Your task to perform on an android device: set default search engine in the chrome app Image 0: 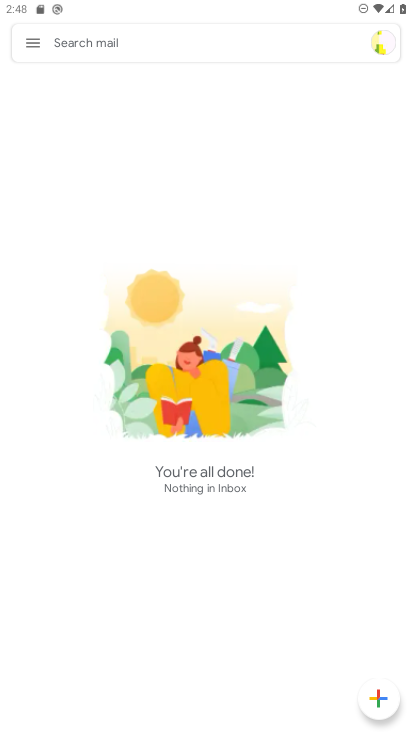
Step 0: press home button
Your task to perform on an android device: set default search engine in the chrome app Image 1: 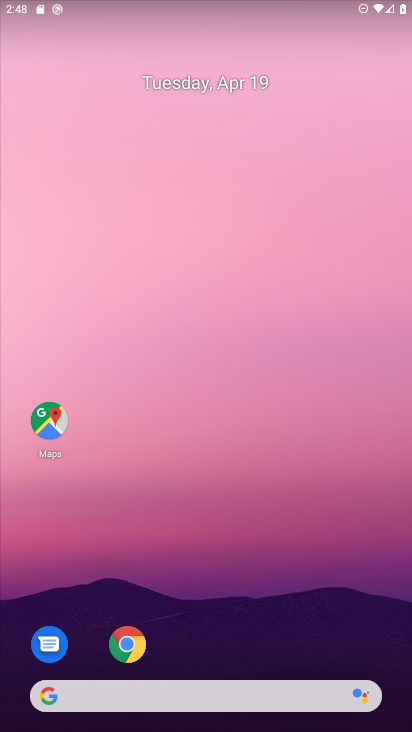
Step 1: drag from (190, 612) to (165, 297)
Your task to perform on an android device: set default search engine in the chrome app Image 2: 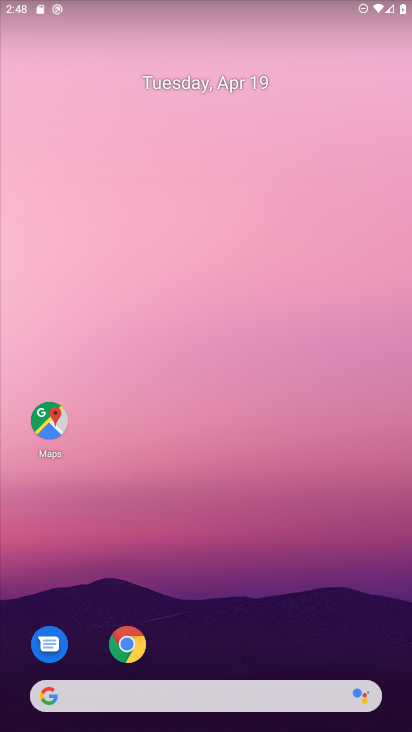
Step 2: click (130, 648)
Your task to perform on an android device: set default search engine in the chrome app Image 3: 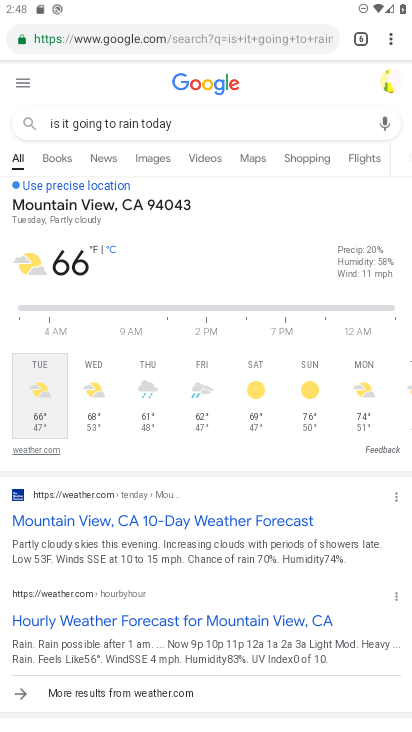
Step 3: click (392, 35)
Your task to perform on an android device: set default search engine in the chrome app Image 4: 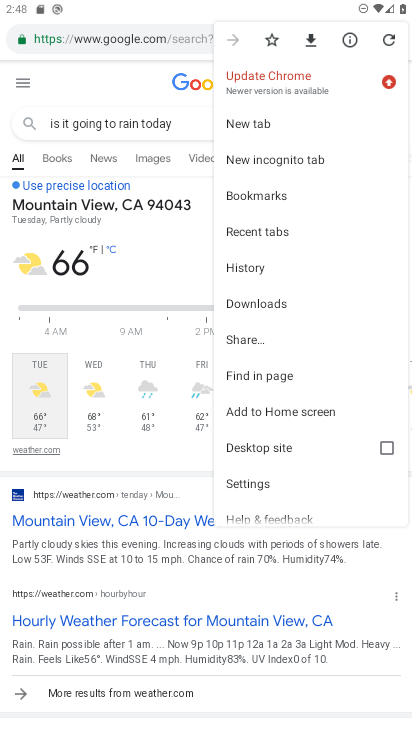
Step 4: click (255, 484)
Your task to perform on an android device: set default search engine in the chrome app Image 5: 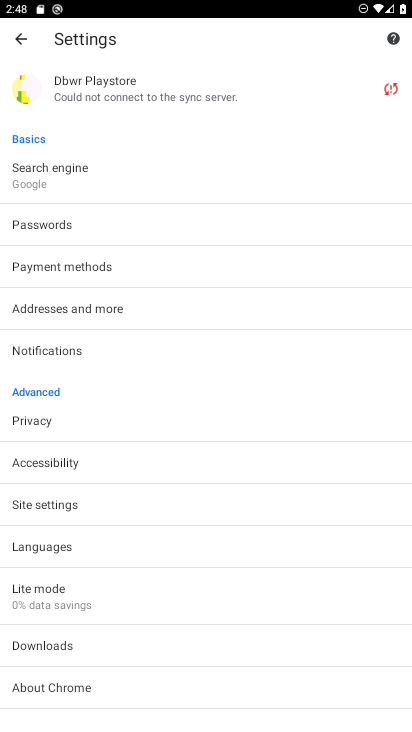
Step 5: click (63, 174)
Your task to perform on an android device: set default search engine in the chrome app Image 6: 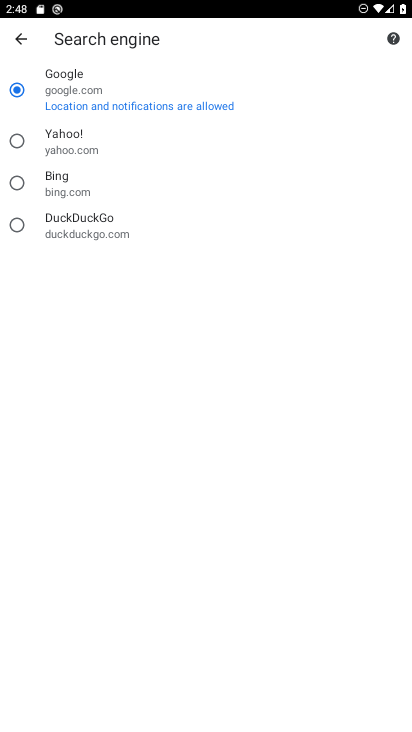
Step 6: click (54, 151)
Your task to perform on an android device: set default search engine in the chrome app Image 7: 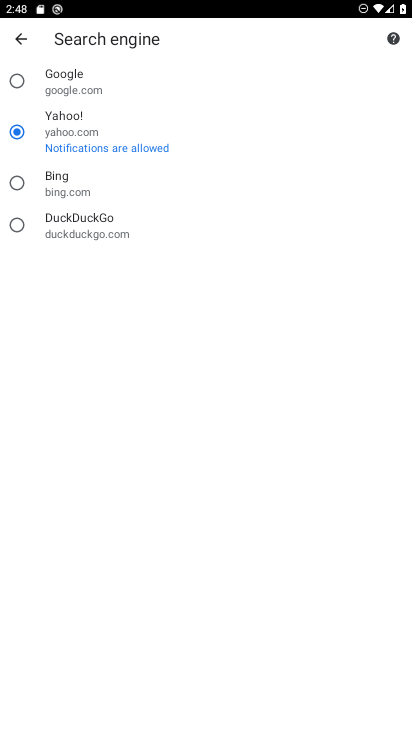
Step 7: task complete